Your task to perform on an android device: change the clock display to show seconds Image 0: 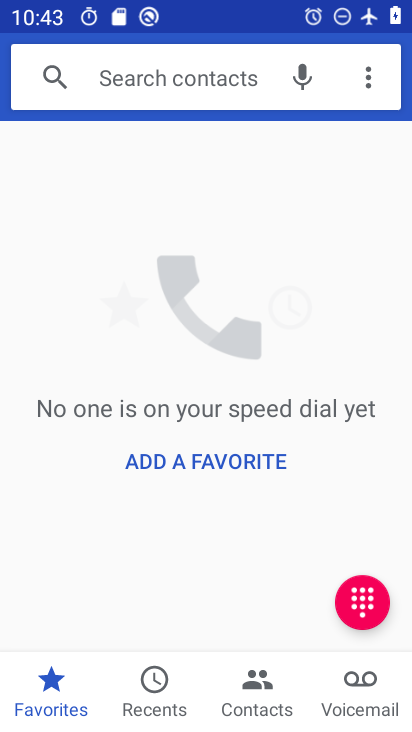
Step 0: drag from (237, 589) to (349, 313)
Your task to perform on an android device: change the clock display to show seconds Image 1: 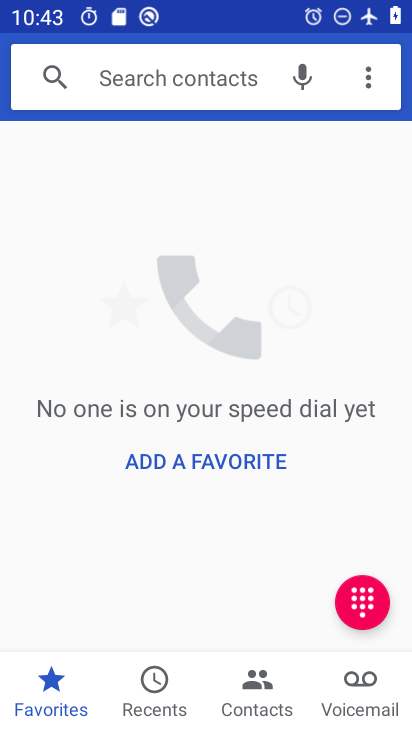
Step 1: press home button
Your task to perform on an android device: change the clock display to show seconds Image 2: 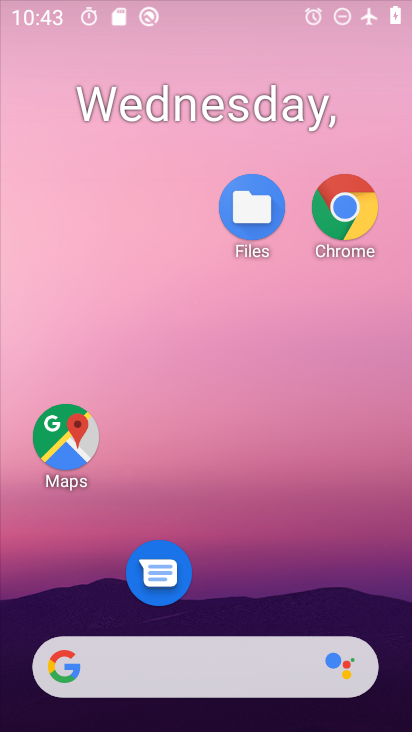
Step 2: drag from (228, 646) to (308, 163)
Your task to perform on an android device: change the clock display to show seconds Image 3: 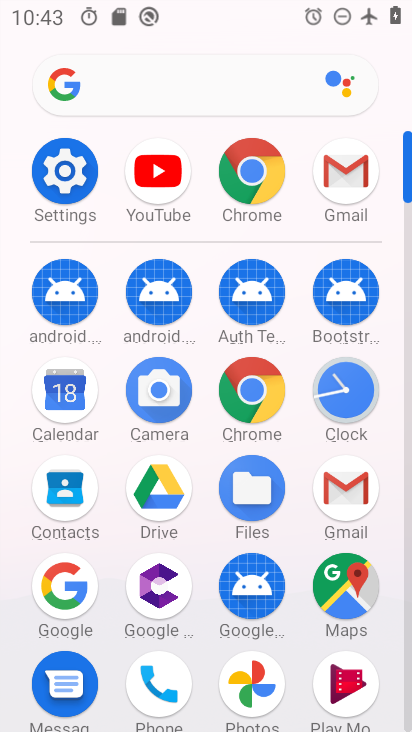
Step 3: click (351, 405)
Your task to perform on an android device: change the clock display to show seconds Image 4: 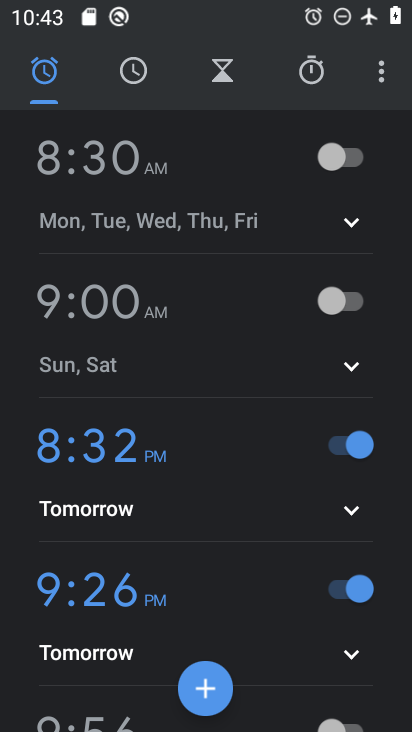
Step 4: click (379, 90)
Your task to perform on an android device: change the clock display to show seconds Image 5: 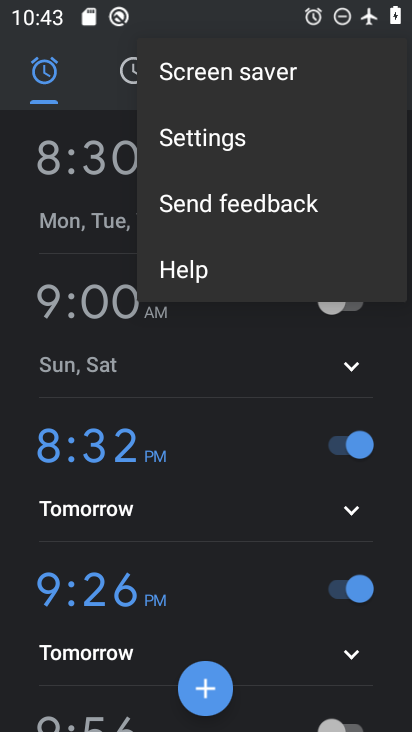
Step 5: click (233, 142)
Your task to perform on an android device: change the clock display to show seconds Image 6: 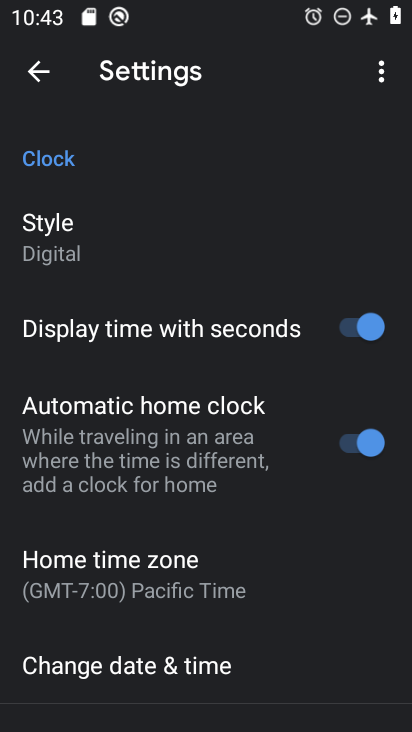
Step 6: task complete